Your task to perform on an android device: Open calendar and show me the first week of next month Image 0: 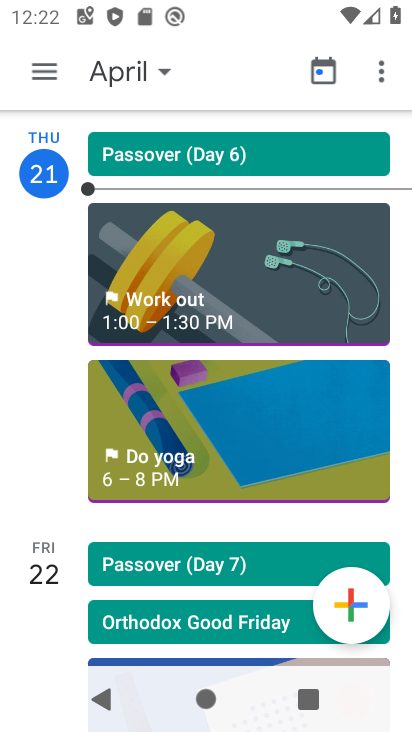
Step 0: press home button
Your task to perform on an android device: Open calendar and show me the first week of next month Image 1: 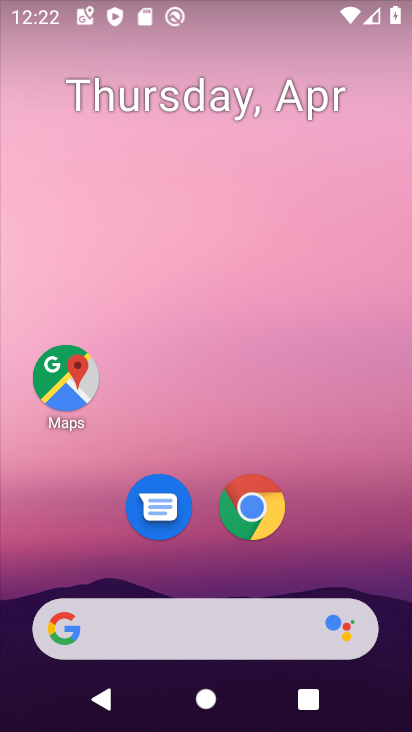
Step 1: drag from (214, 419) to (248, 47)
Your task to perform on an android device: Open calendar and show me the first week of next month Image 2: 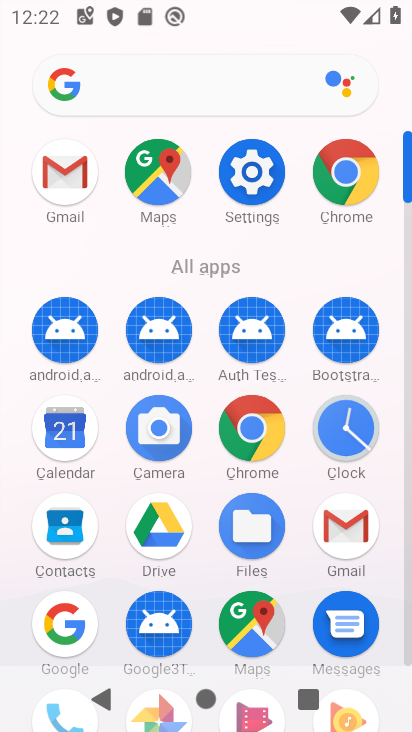
Step 2: click (70, 432)
Your task to perform on an android device: Open calendar and show me the first week of next month Image 3: 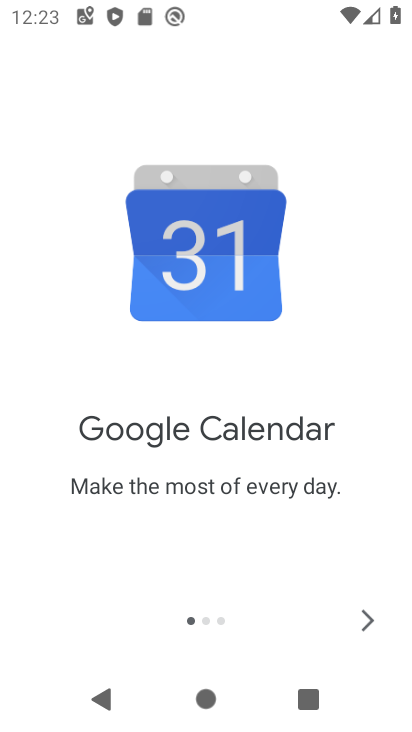
Step 3: click (359, 619)
Your task to perform on an android device: Open calendar and show me the first week of next month Image 4: 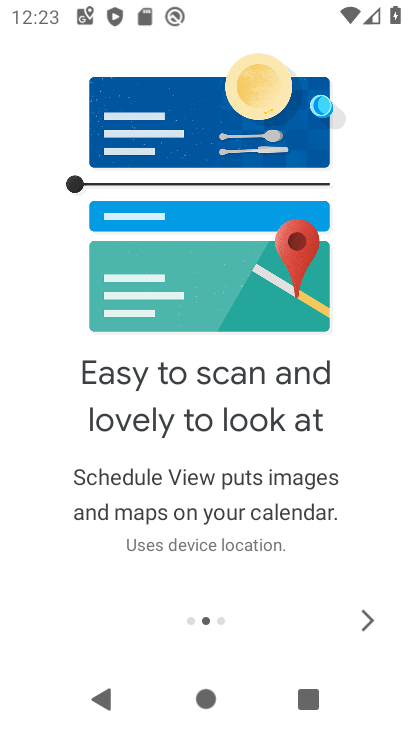
Step 4: click (359, 619)
Your task to perform on an android device: Open calendar and show me the first week of next month Image 5: 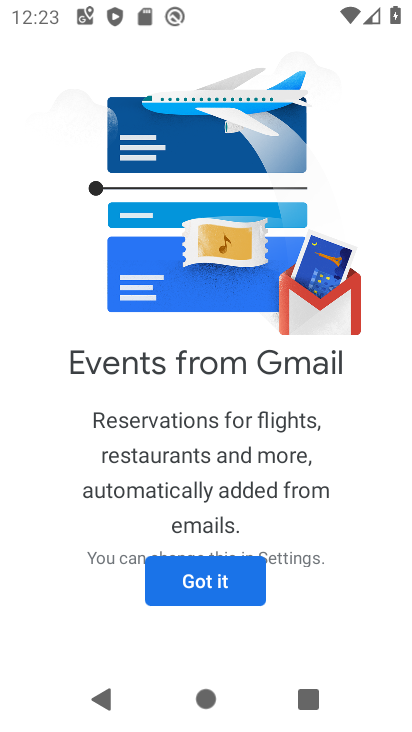
Step 5: click (213, 583)
Your task to perform on an android device: Open calendar and show me the first week of next month Image 6: 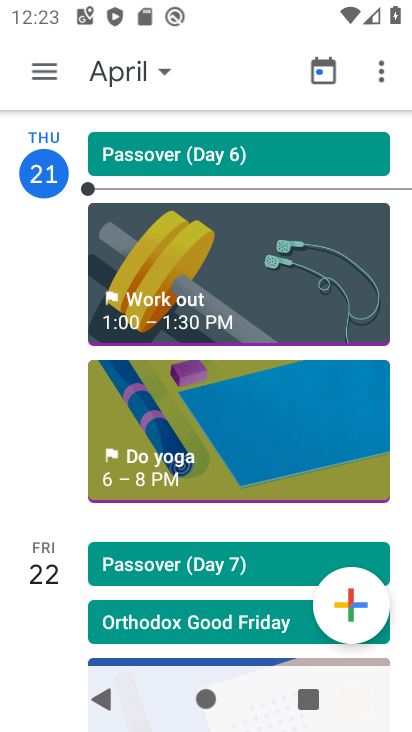
Step 6: click (163, 73)
Your task to perform on an android device: Open calendar and show me the first week of next month Image 7: 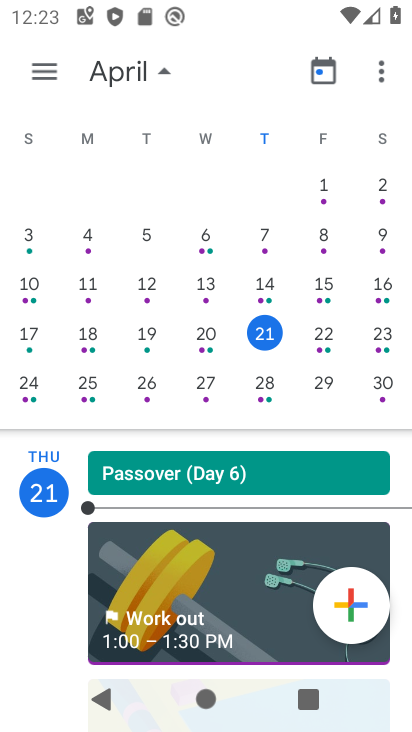
Step 7: drag from (343, 354) to (3, 296)
Your task to perform on an android device: Open calendar and show me the first week of next month Image 8: 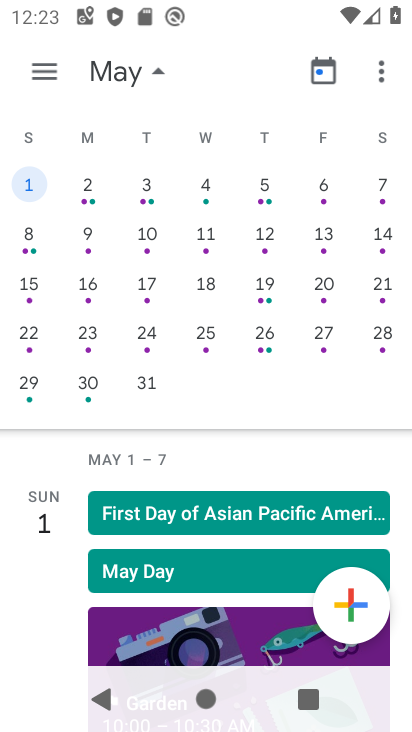
Step 8: click (97, 190)
Your task to perform on an android device: Open calendar and show me the first week of next month Image 9: 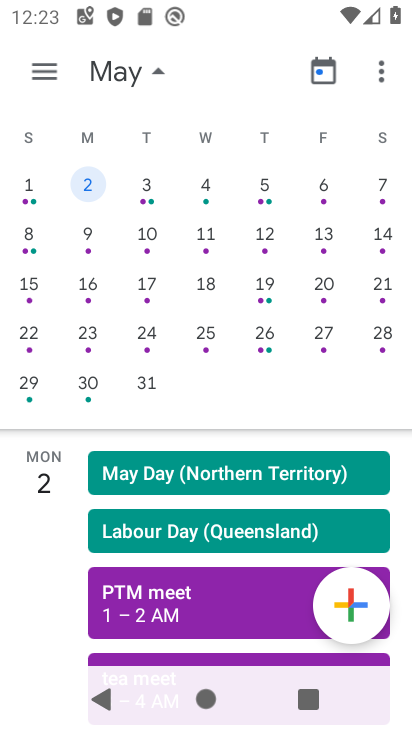
Step 9: click (58, 69)
Your task to perform on an android device: Open calendar and show me the first week of next month Image 10: 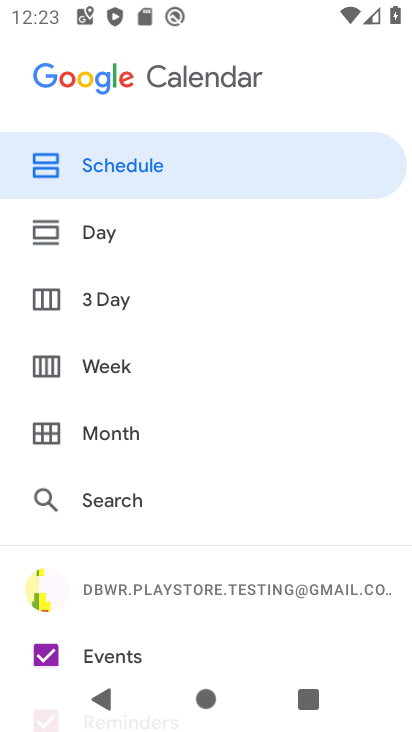
Step 10: click (124, 367)
Your task to perform on an android device: Open calendar and show me the first week of next month Image 11: 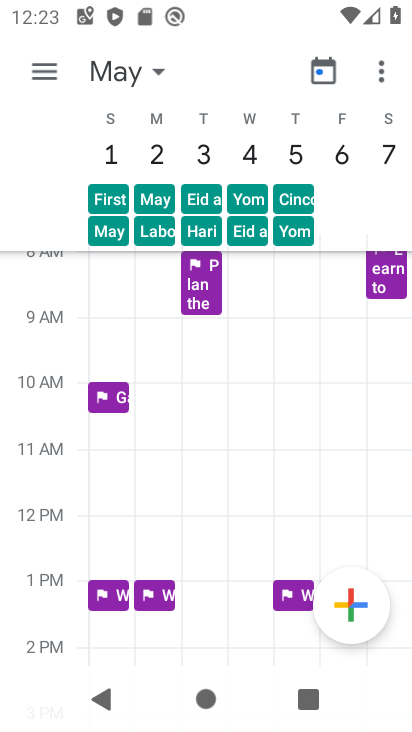
Step 11: task complete